Your task to perform on an android device: turn off picture-in-picture Image 0: 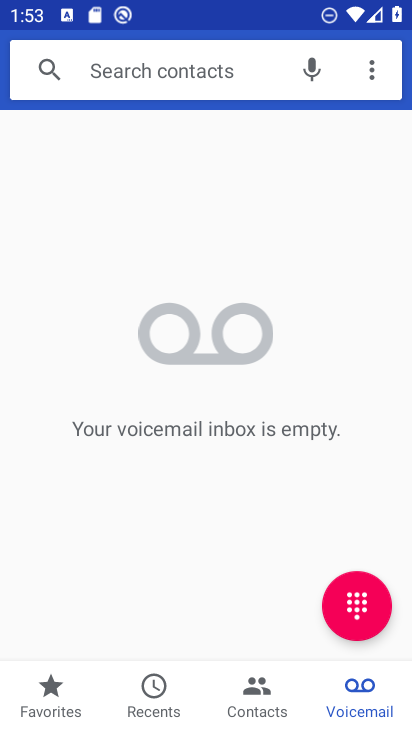
Step 0: press home button
Your task to perform on an android device: turn off picture-in-picture Image 1: 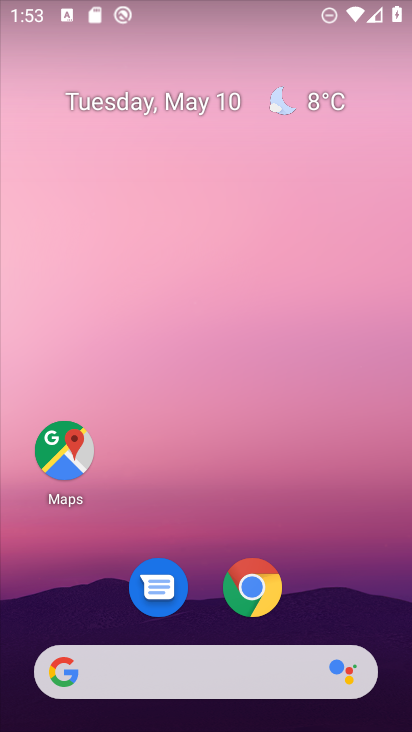
Step 1: click (263, 584)
Your task to perform on an android device: turn off picture-in-picture Image 2: 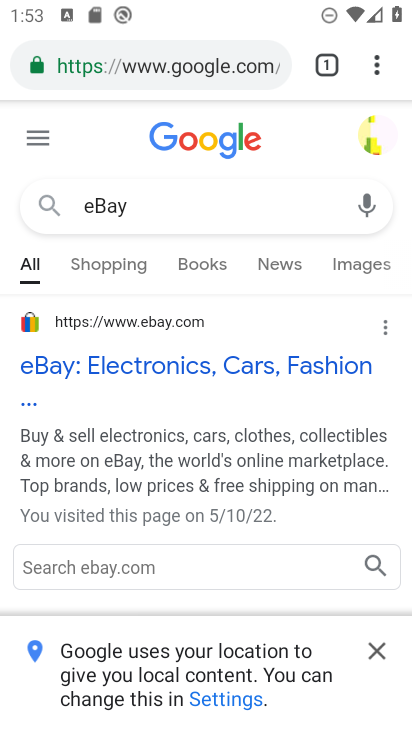
Step 2: press home button
Your task to perform on an android device: turn off picture-in-picture Image 3: 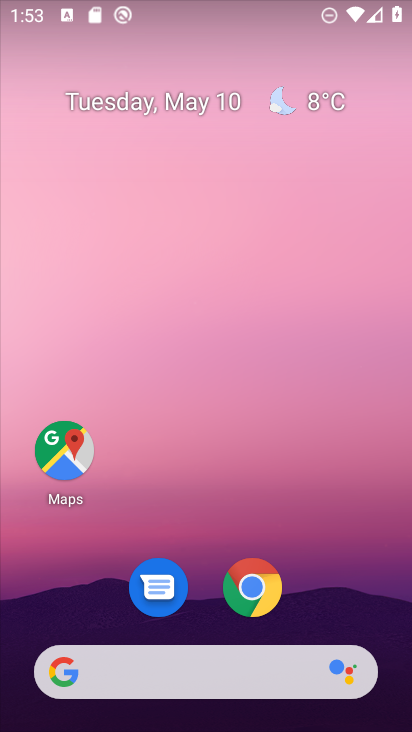
Step 3: click (250, 590)
Your task to perform on an android device: turn off picture-in-picture Image 4: 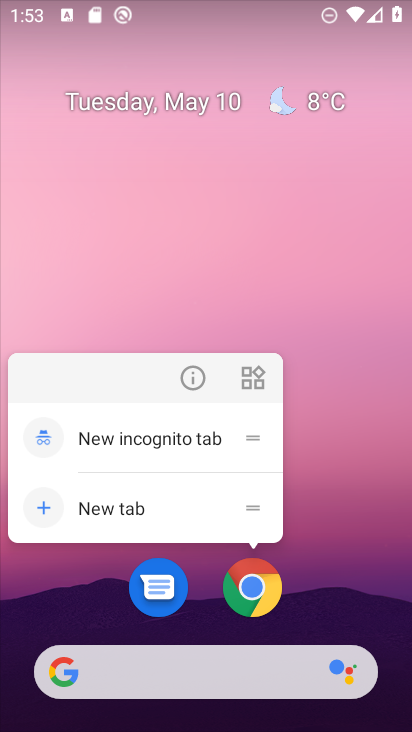
Step 4: click (190, 372)
Your task to perform on an android device: turn off picture-in-picture Image 5: 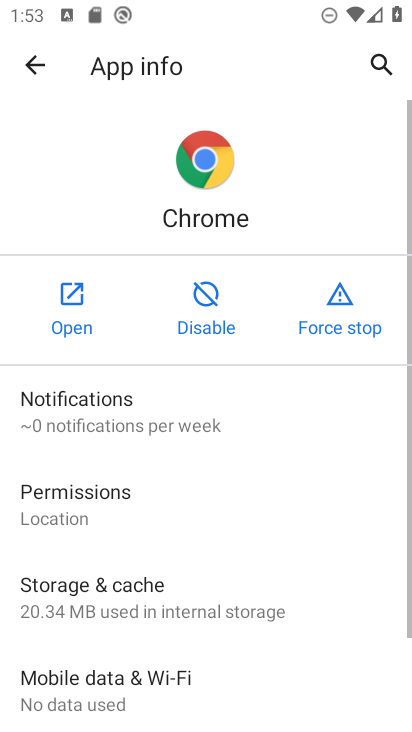
Step 5: drag from (317, 673) to (303, 370)
Your task to perform on an android device: turn off picture-in-picture Image 6: 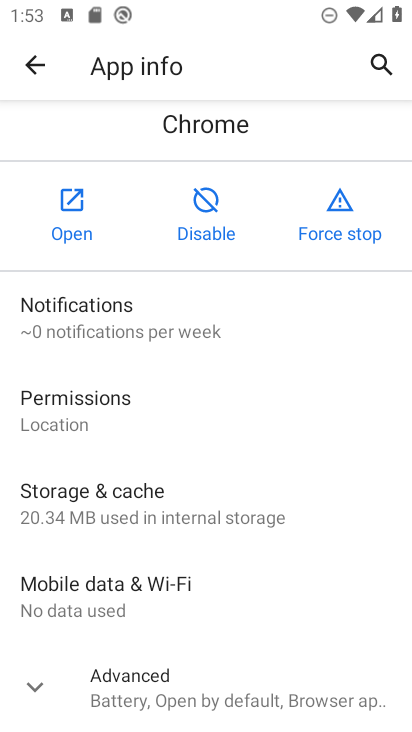
Step 6: click (67, 687)
Your task to perform on an android device: turn off picture-in-picture Image 7: 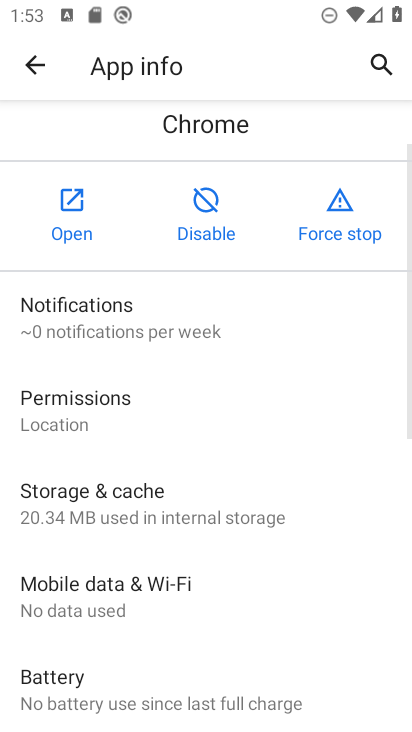
Step 7: drag from (345, 700) to (324, 328)
Your task to perform on an android device: turn off picture-in-picture Image 8: 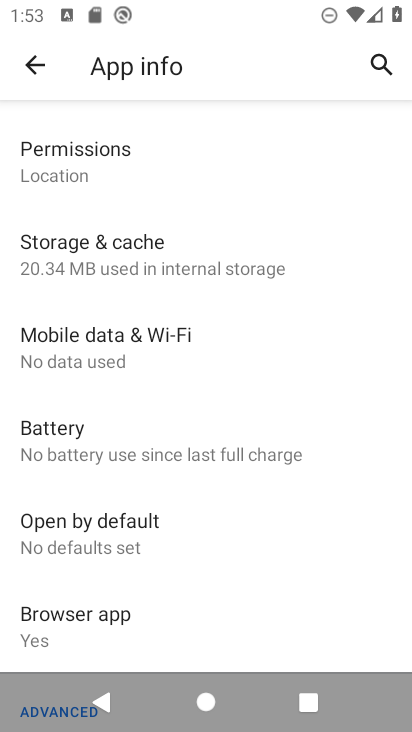
Step 8: drag from (302, 598) to (281, 407)
Your task to perform on an android device: turn off picture-in-picture Image 9: 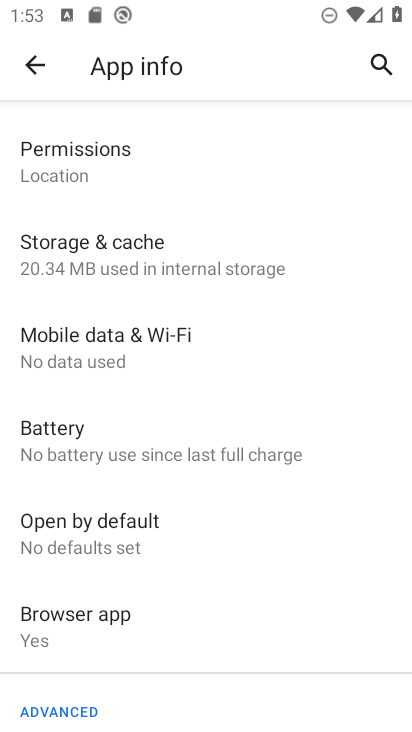
Step 9: drag from (268, 655) to (283, 315)
Your task to perform on an android device: turn off picture-in-picture Image 10: 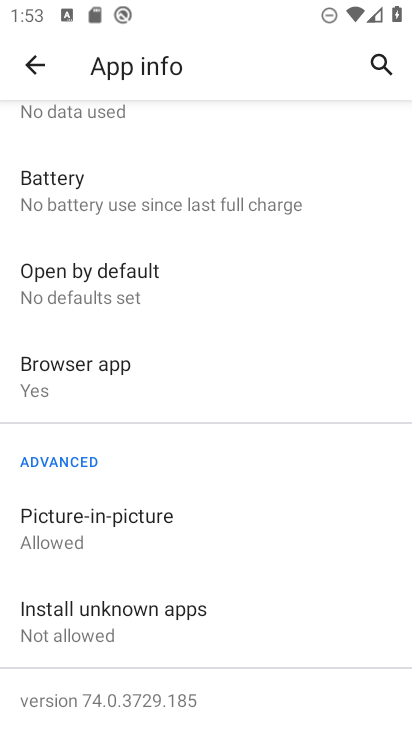
Step 10: click (67, 523)
Your task to perform on an android device: turn off picture-in-picture Image 11: 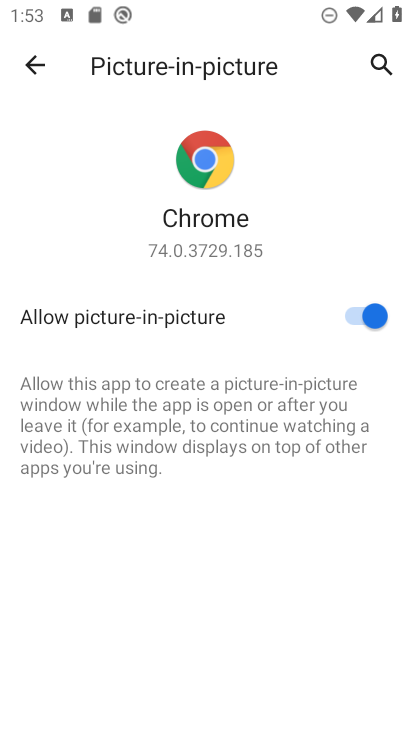
Step 11: click (348, 321)
Your task to perform on an android device: turn off picture-in-picture Image 12: 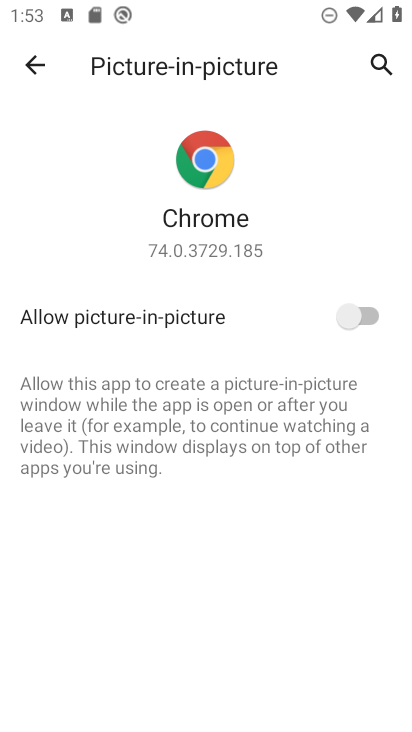
Step 12: task complete